Your task to perform on an android device: Go to Reddit.com Image 0: 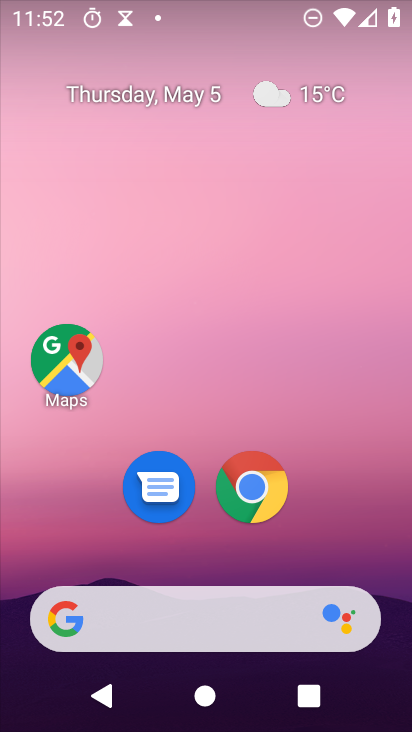
Step 0: drag from (252, 688) to (186, 164)
Your task to perform on an android device: Go to Reddit.com Image 1: 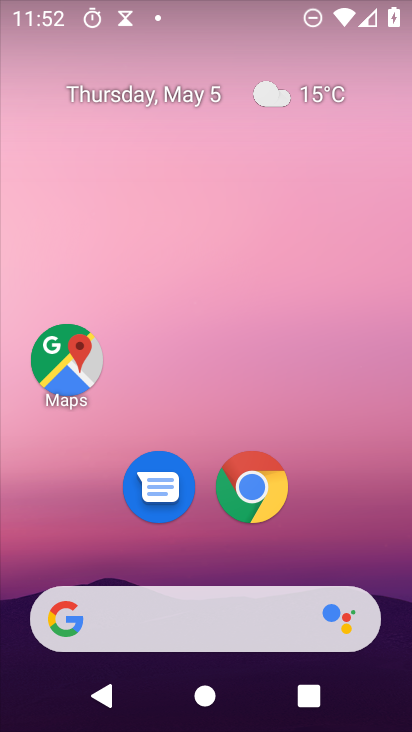
Step 1: drag from (241, 640) to (183, 179)
Your task to perform on an android device: Go to Reddit.com Image 2: 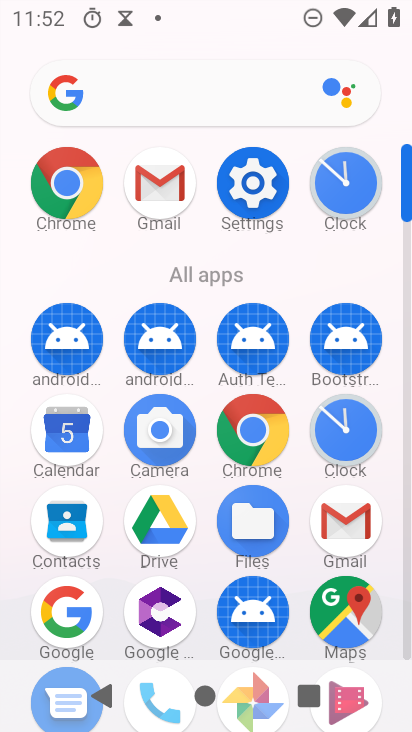
Step 2: click (251, 431)
Your task to perform on an android device: Go to Reddit.com Image 3: 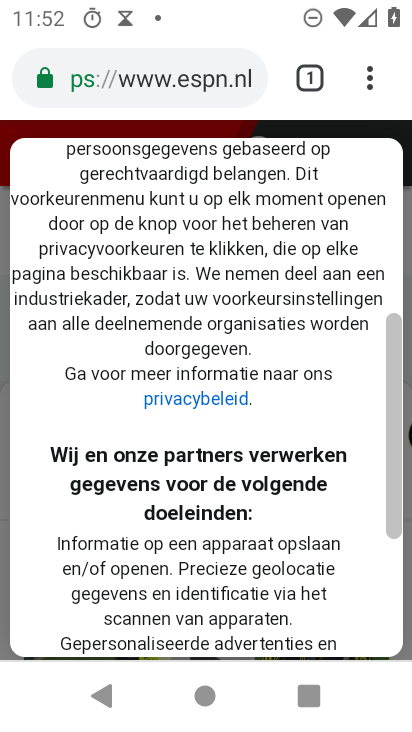
Step 3: click (373, 88)
Your task to perform on an android device: Go to Reddit.com Image 4: 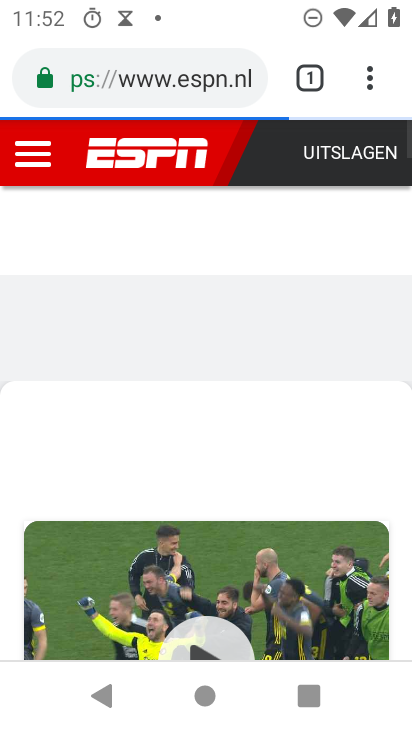
Step 4: click (384, 74)
Your task to perform on an android device: Go to Reddit.com Image 5: 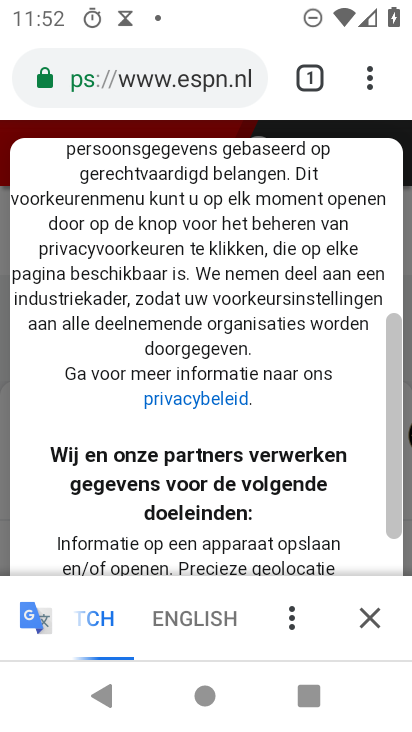
Step 5: press home button
Your task to perform on an android device: Go to Reddit.com Image 6: 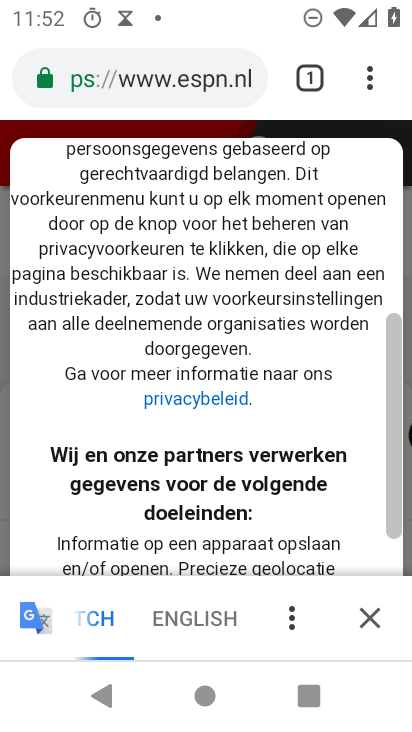
Step 6: press home button
Your task to perform on an android device: Go to Reddit.com Image 7: 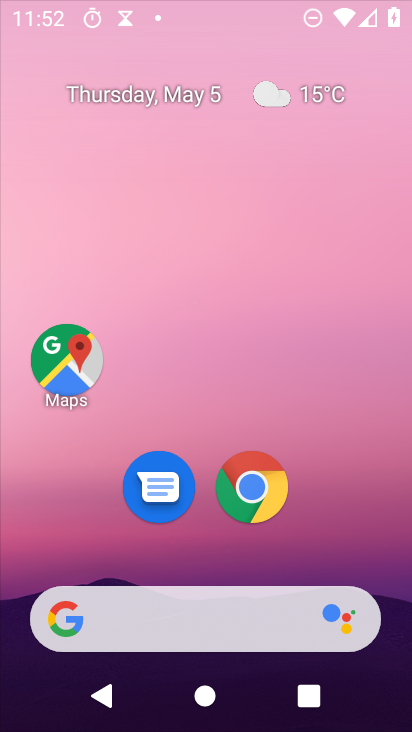
Step 7: press home button
Your task to perform on an android device: Go to Reddit.com Image 8: 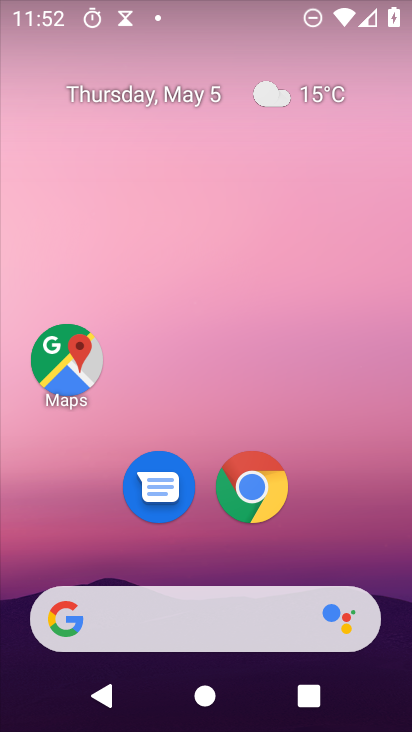
Step 8: click (255, 482)
Your task to perform on an android device: Go to Reddit.com Image 9: 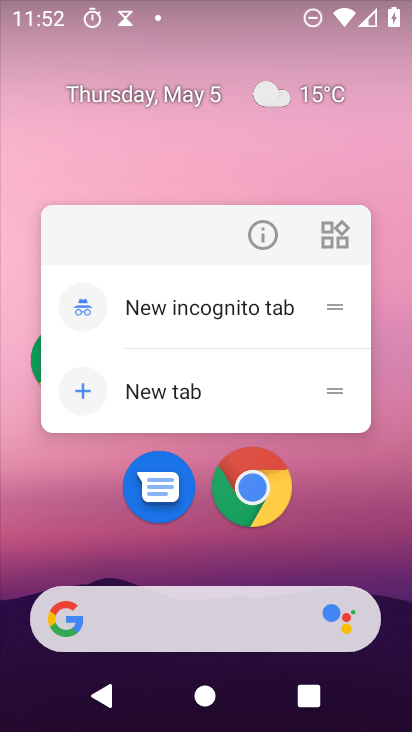
Step 9: click (255, 482)
Your task to perform on an android device: Go to Reddit.com Image 10: 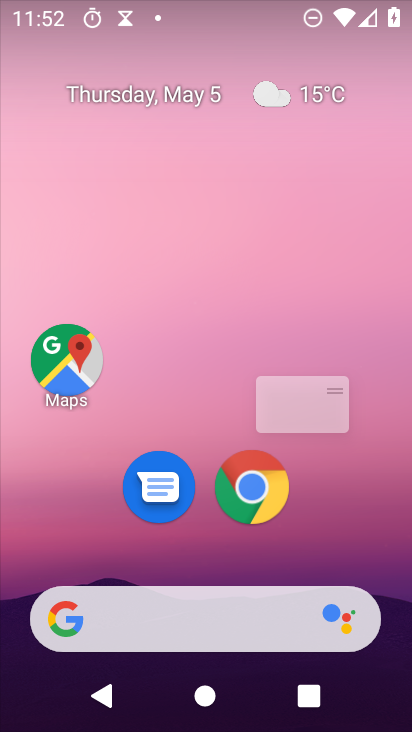
Step 10: click (255, 482)
Your task to perform on an android device: Go to Reddit.com Image 11: 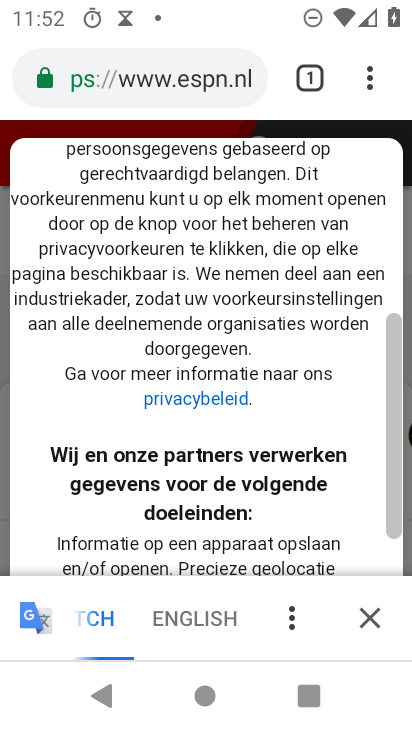
Step 11: drag from (364, 80) to (90, 160)
Your task to perform on an android device: Go to Reddit.com Image 12: 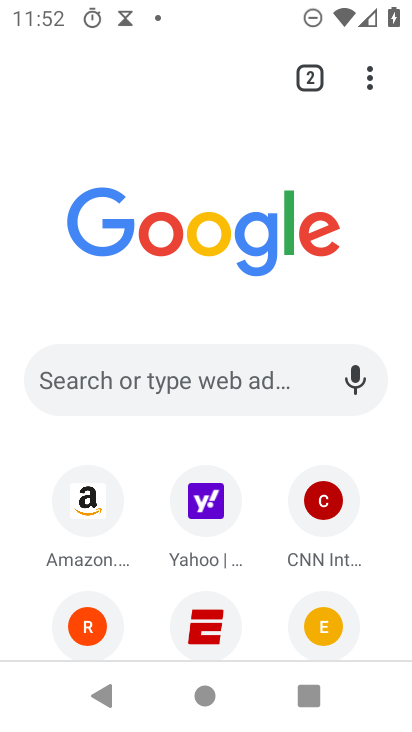
Step 12: drag from (154, 610) to (105, 311)
Your task to perform on an android device: Go to Reddit.com Image 13: 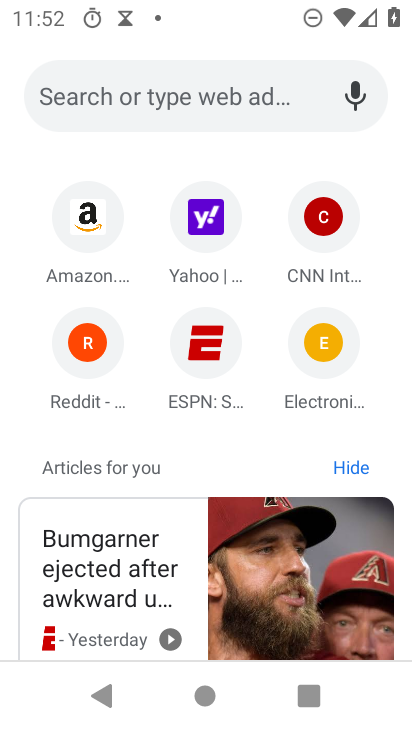
Step 13: click (91, 363)
Your task to perform on an android device: Go to Reddit.com Image 14: 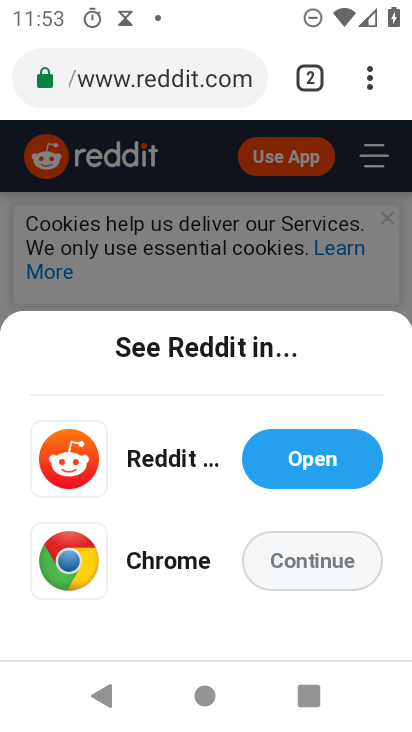
Step 14: click (236, 280)
Your task to perform on an android device: Go to Reddit.com Image 15: 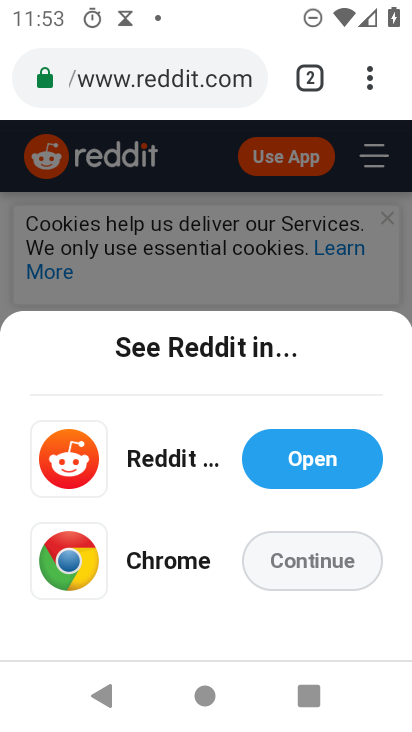
Step 15: task complete